Your task to perform on an android device: toggle priority inbox in the gmail app Image 0: 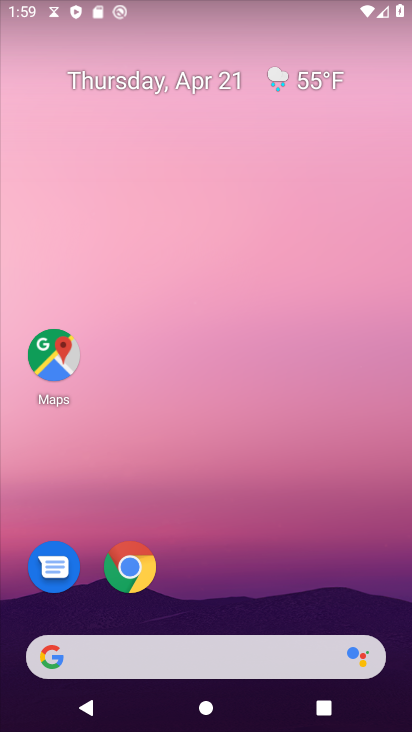
Step 0: drag from (145, 584) to (290, 131)
Your task to perform on an android device: toggle priority inbox in the gmail app Image 1: 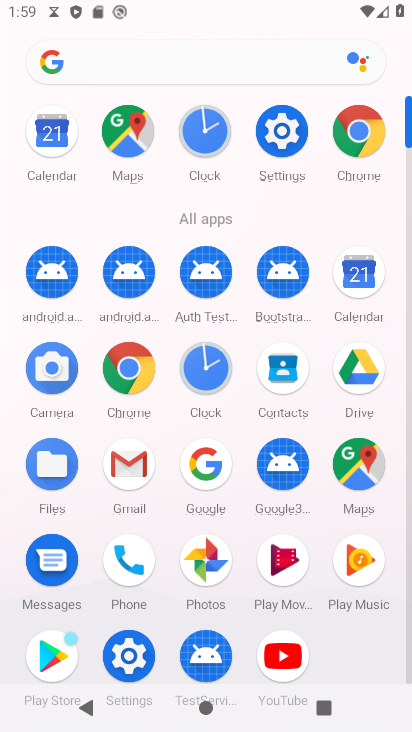
Step 1: click (140, 480)
Your task to perform on an android device: toggle priority inbox in the gmail app Image 2: 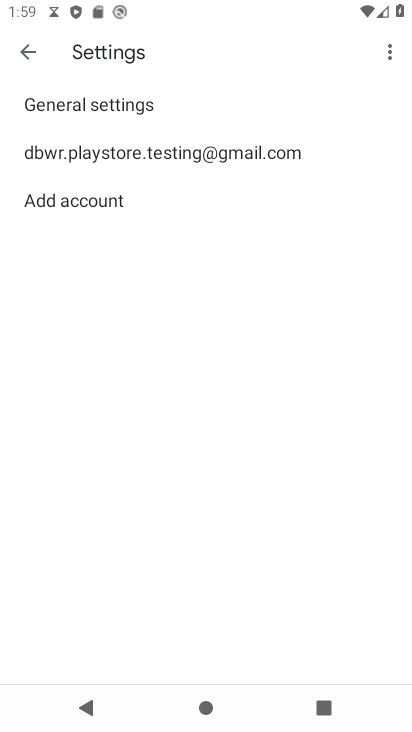
Step 2: click (234, 151)
Your task to perform on an android device: toggle priority inbox in the gmail app Image 3: 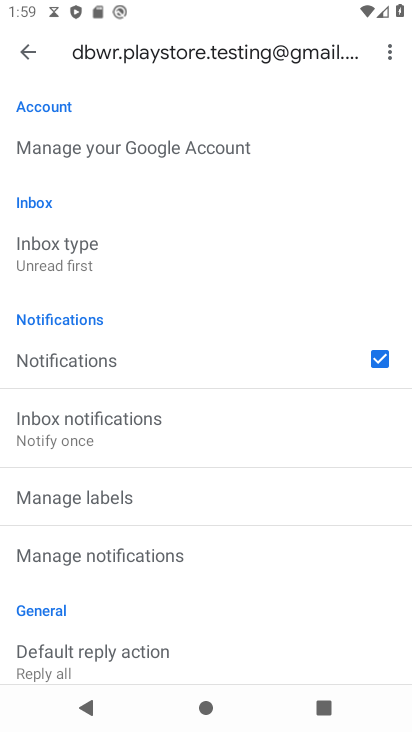
Step 3: task complete